Your task to perform on an android device: Show me recent news Image 0: 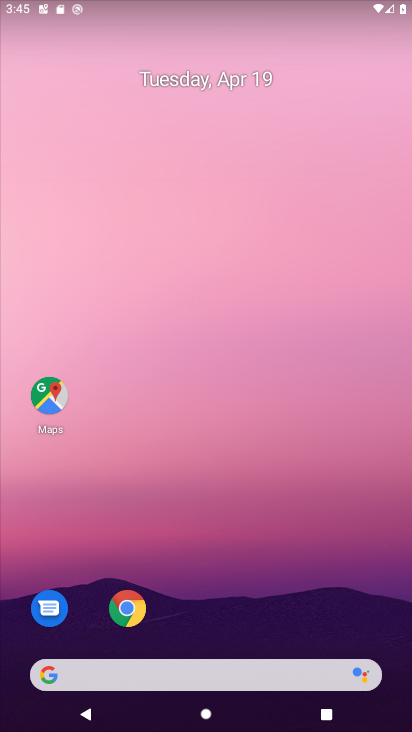
Step 0: drag from (283, 574) to (277, 82)
Your task to perform on an android device: Show me recent news Image 1: 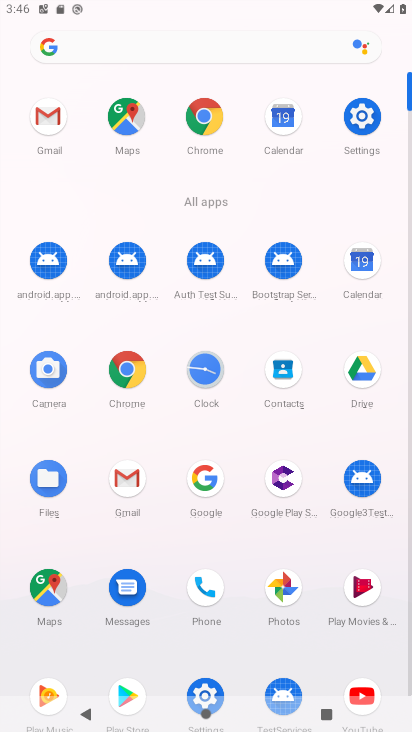
Step 1: click (118, 371)
Your task to perform on an android device: Show me recent news Image 2: 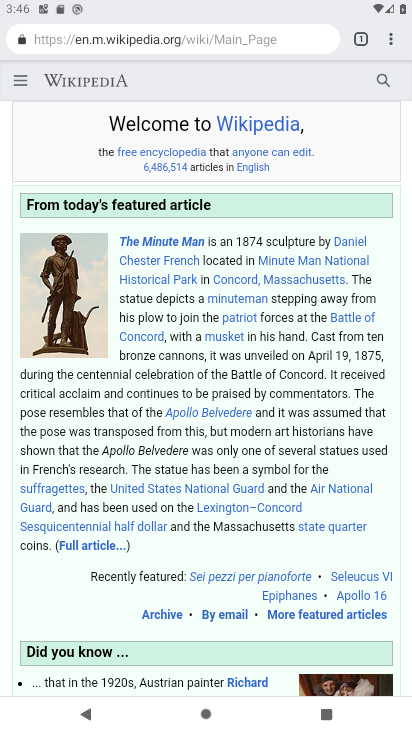
Step 2: click (237, 26)
Your task to perform on an android device: Show me recent news Image 3: 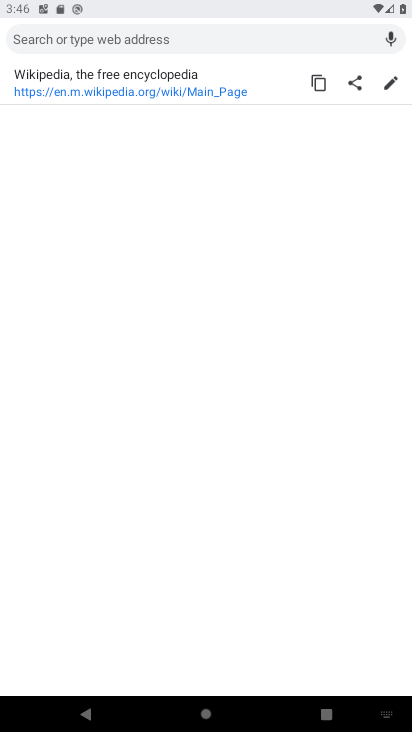
Step 3: type "recent news"
Your task to perform on an android device: Show me recent news Image 4: 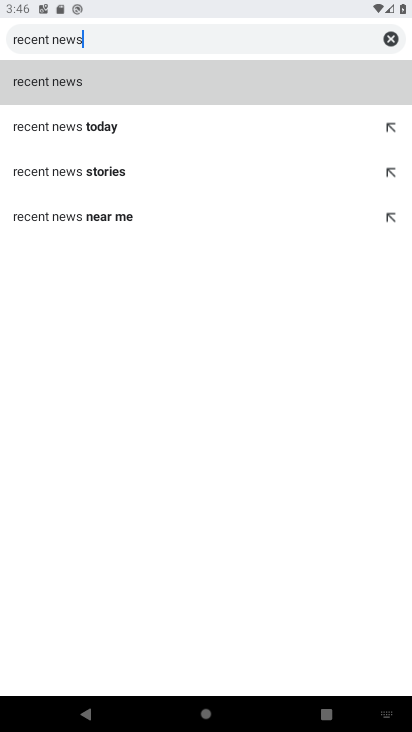
Step 4: click (72, 84)
Your task to perform on an android device: Show me recent news Image 5: 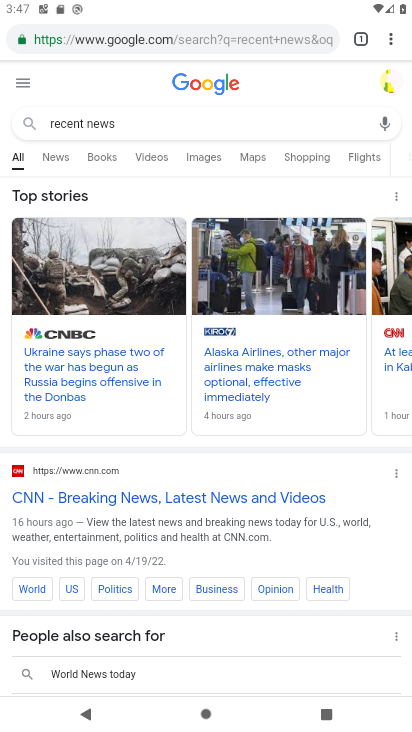
Step 5: click (53, 156)
Your task to perform on an android device: Show me recent news Image 6: 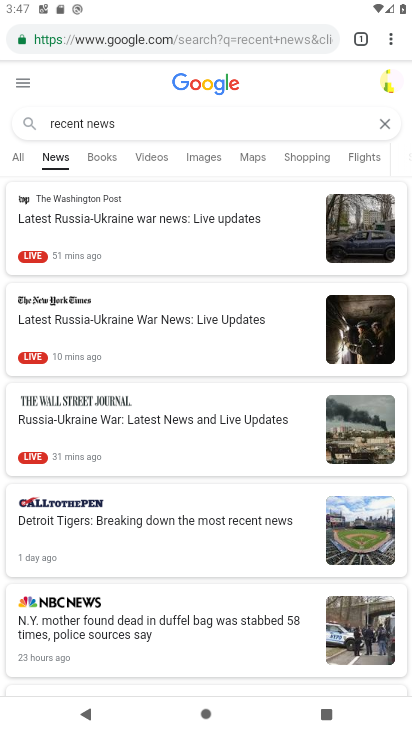
Step 6: task complete